Your task to perform on an android device: see tabs open on other devices in the chrome app Image 0: 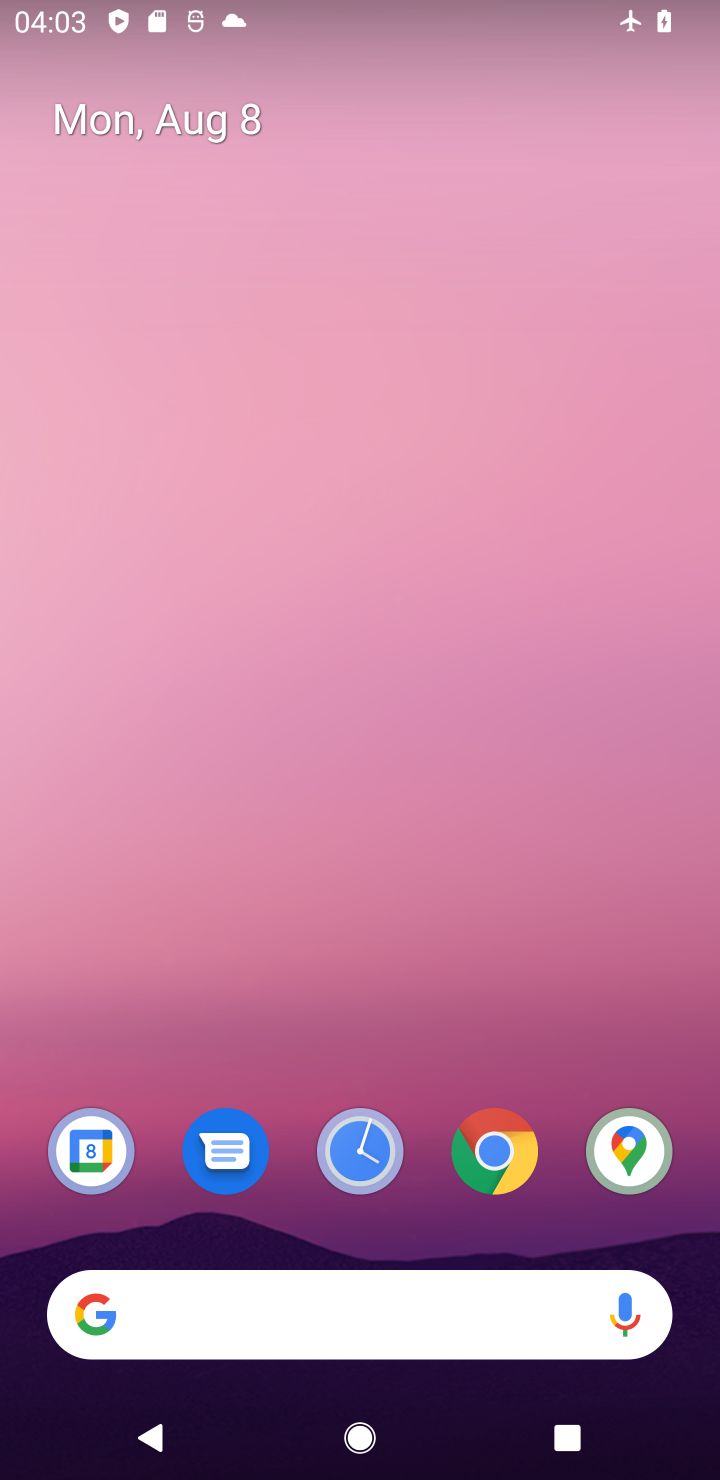
Step 0: click (474, 1163)
Your task to perform on an android device: see tabs open on other devices in the chrome app Image 1: 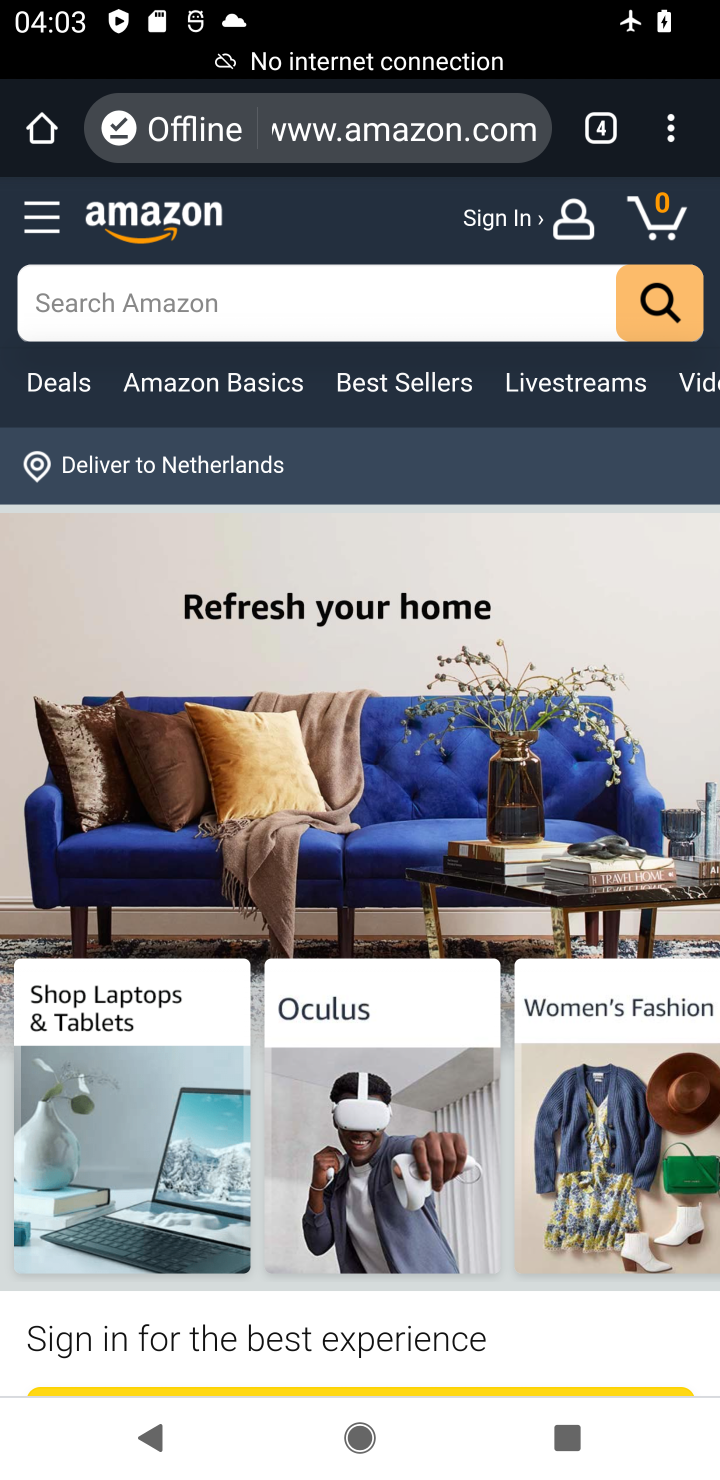
Step 1: click (671, 127)
Your task to perform on an android device: see tabs open on other devices in the chrome app Image 2: 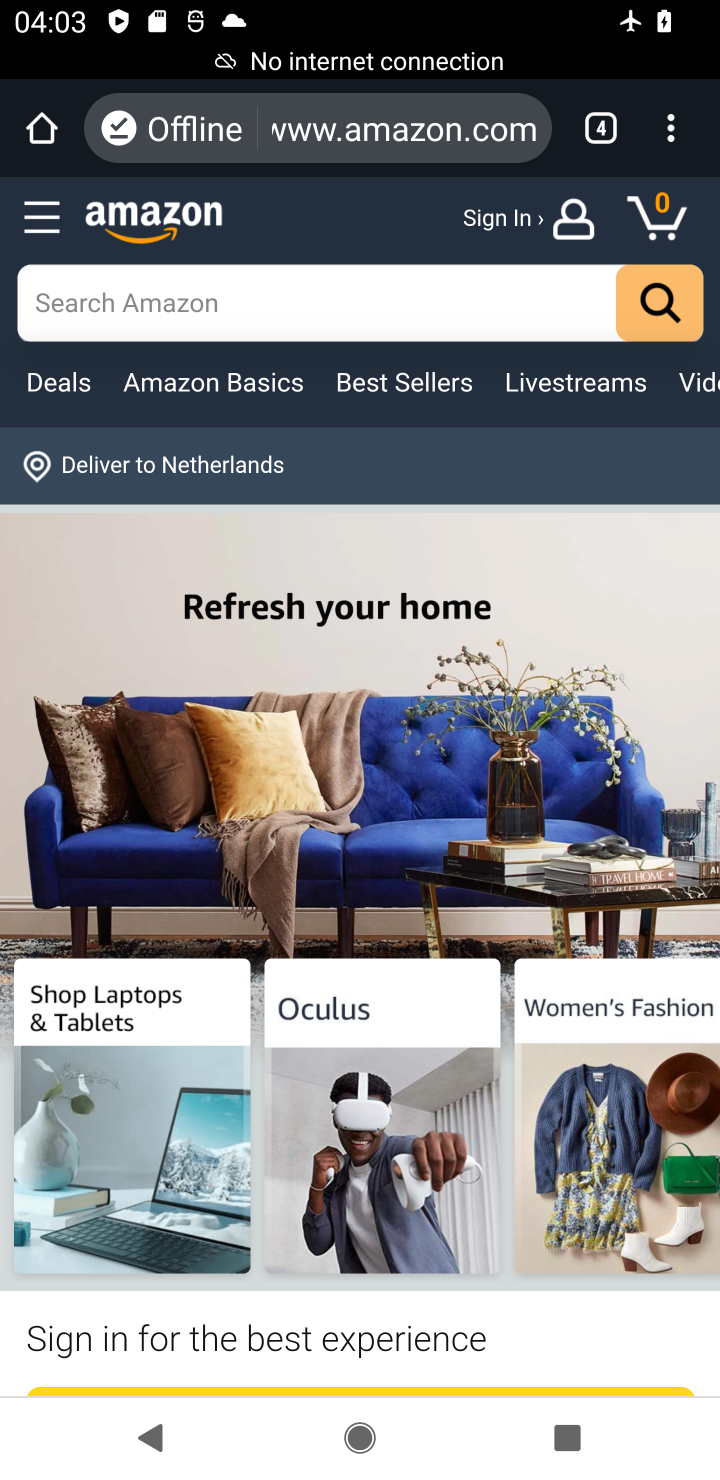
Step 2: task complete